Your task to perform on an android device: open chrome privacy settings Image 0: 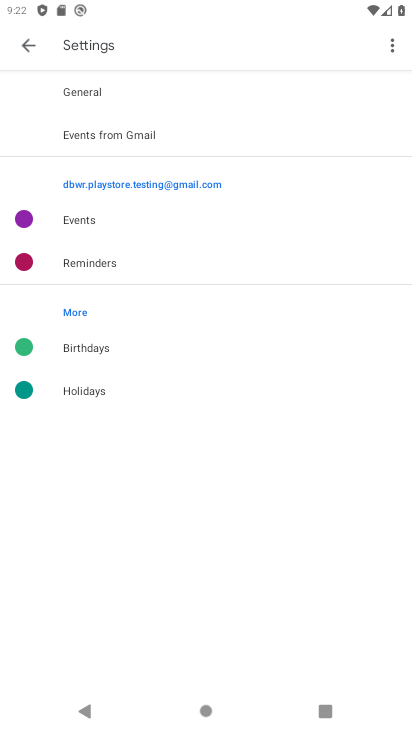
Step 0: press home button
Your task to perform on an android device: open chrome privacy settings Image 1: 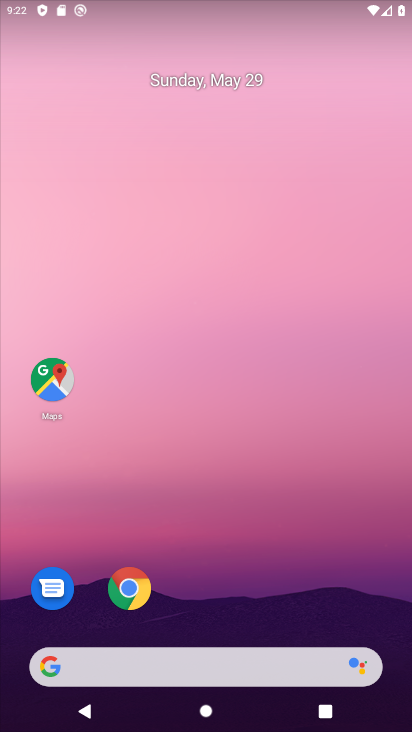
Step 1: click (125, 592)
Your task to perform on an android device: open chrome privacy settings Image 2: 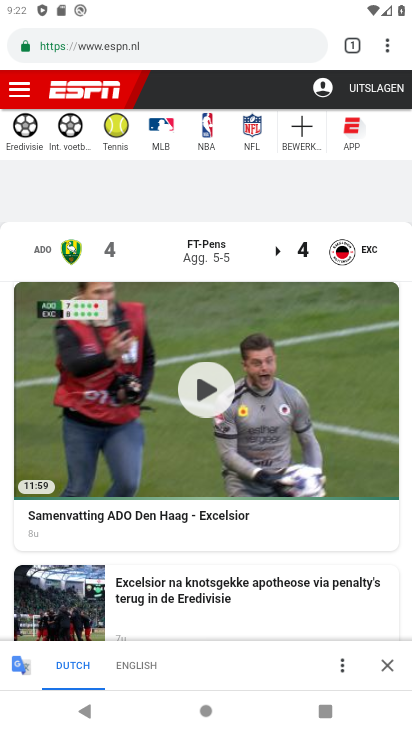
Step 2: click (387, 45)
Your task to perform on an android device: open chrome privacy settings Image 3: 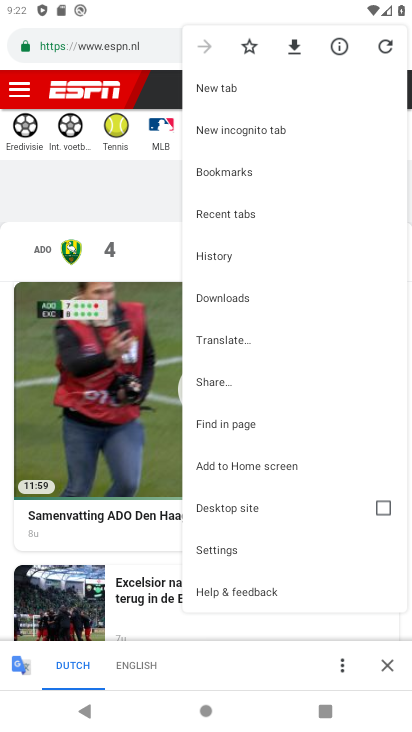
Step 3: click (247, 548)
Your task to perform on an android device: open chrome privacy settings Image 4: 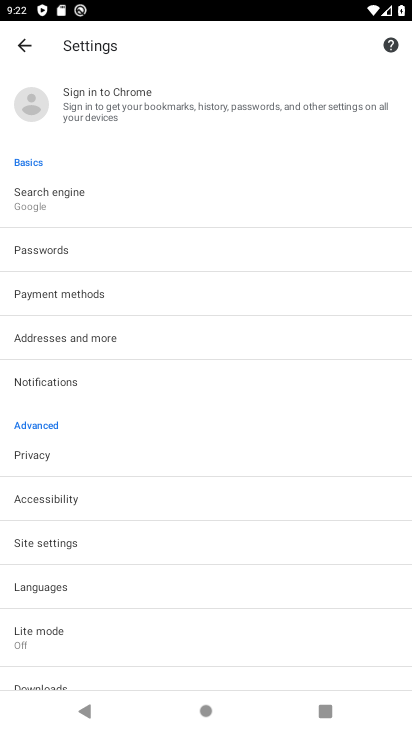
Step 4: click (62, 456)
Your task to perform on an android device: open chrome privacy settings Image 5: 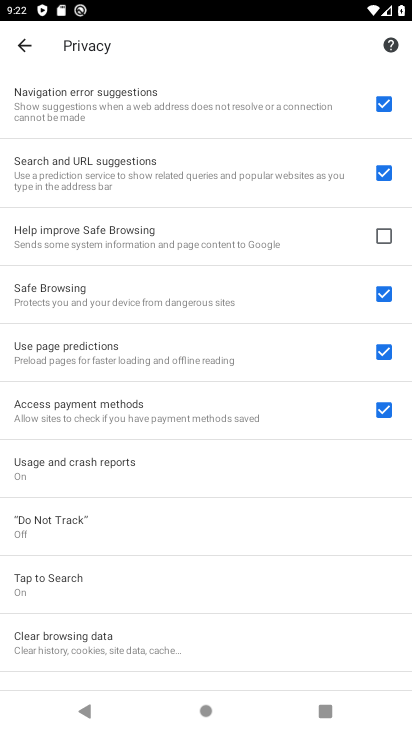
Step 5: task complete